Your task to perform on an android device: open wifi settings Image 0: 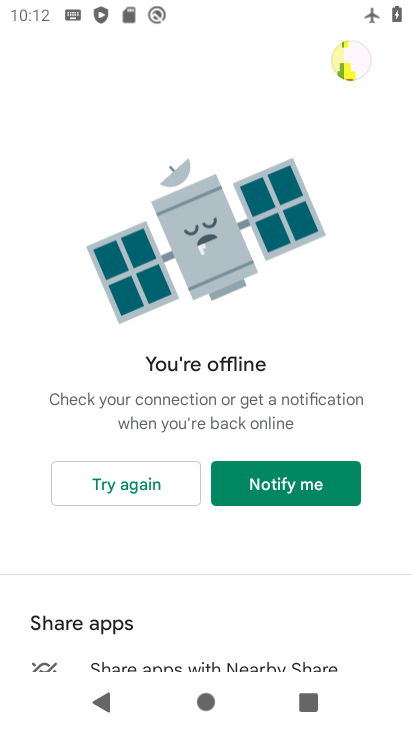
Step 0: press back button
Your task to perform on an android device: open wifi settings Image 1: 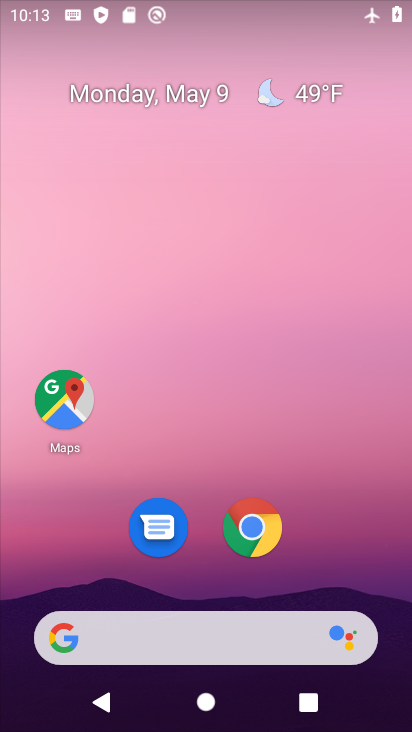
Step 1: drag from (326, 570) to (195, 63)
Your task to perform on an android device: open wifi settings Image 2: 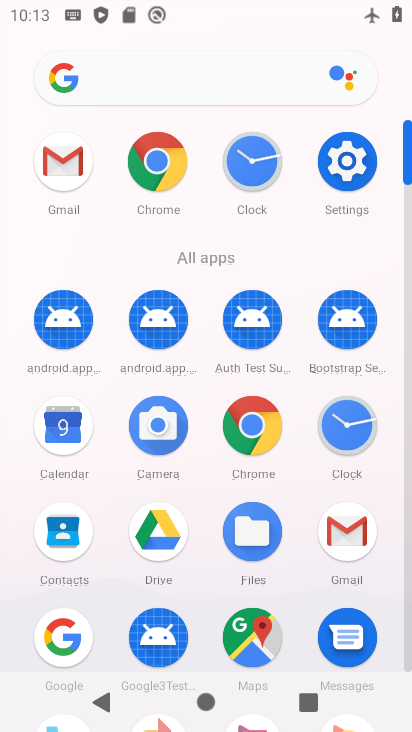
Step 2: click (345, 162)
Your task to perform on an android device: open wifi settings Image 3: 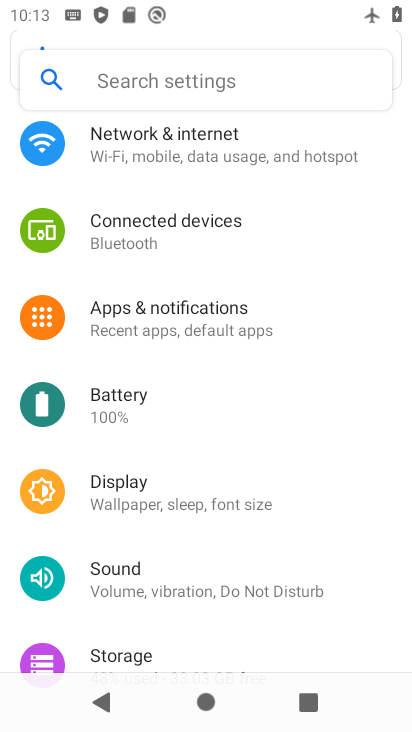
Step 3: click (203, 155)
Your task to perform on an android device: open wifi settings Image 4: 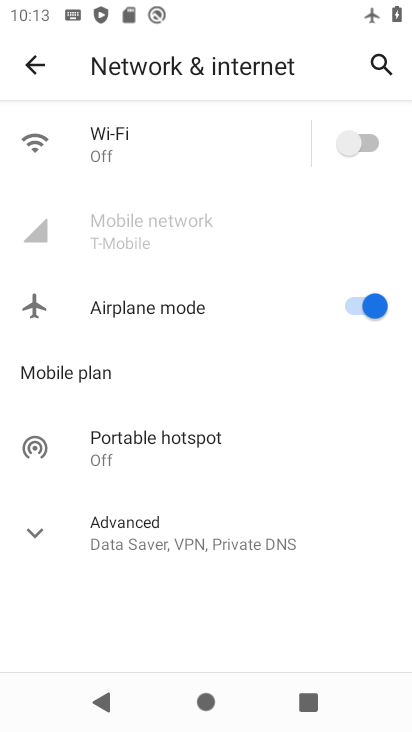
Step 4: click (106, 127)
Your task to perform on an android device: open wifi settings Image 5: 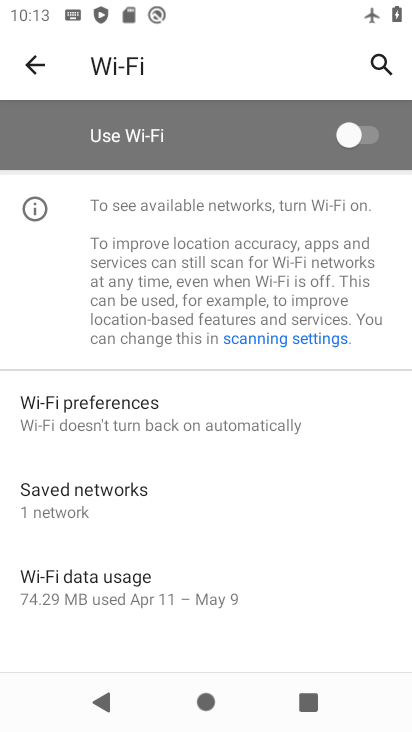
Step 5: task complete